Your task to perform on an android device: Open the Play Movies app and select the watchlist tab. Image 0: 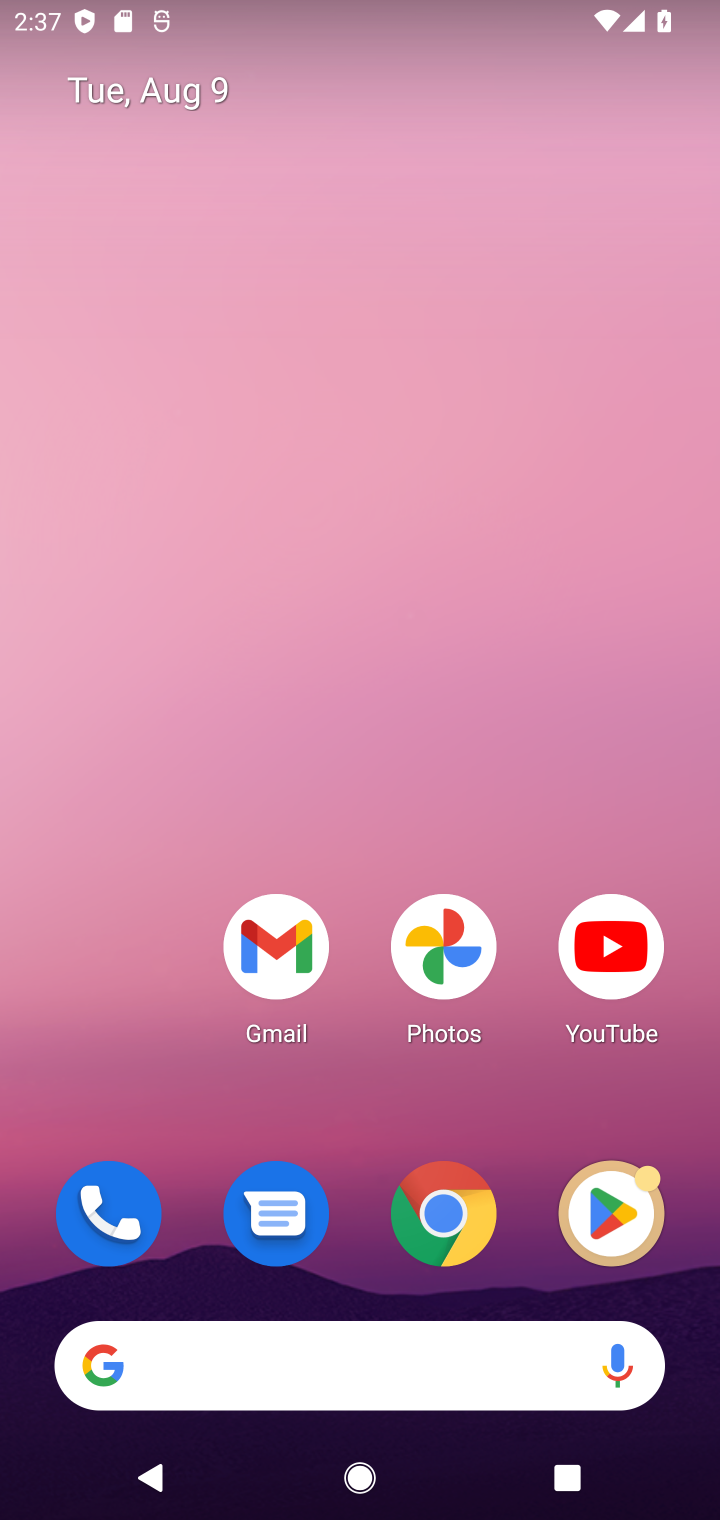
Step 0: drag from (287, 1338) to (576, 641)
Your task to perform on an android device: Open the Play Movies app and select the watchlist tab. Image 1: 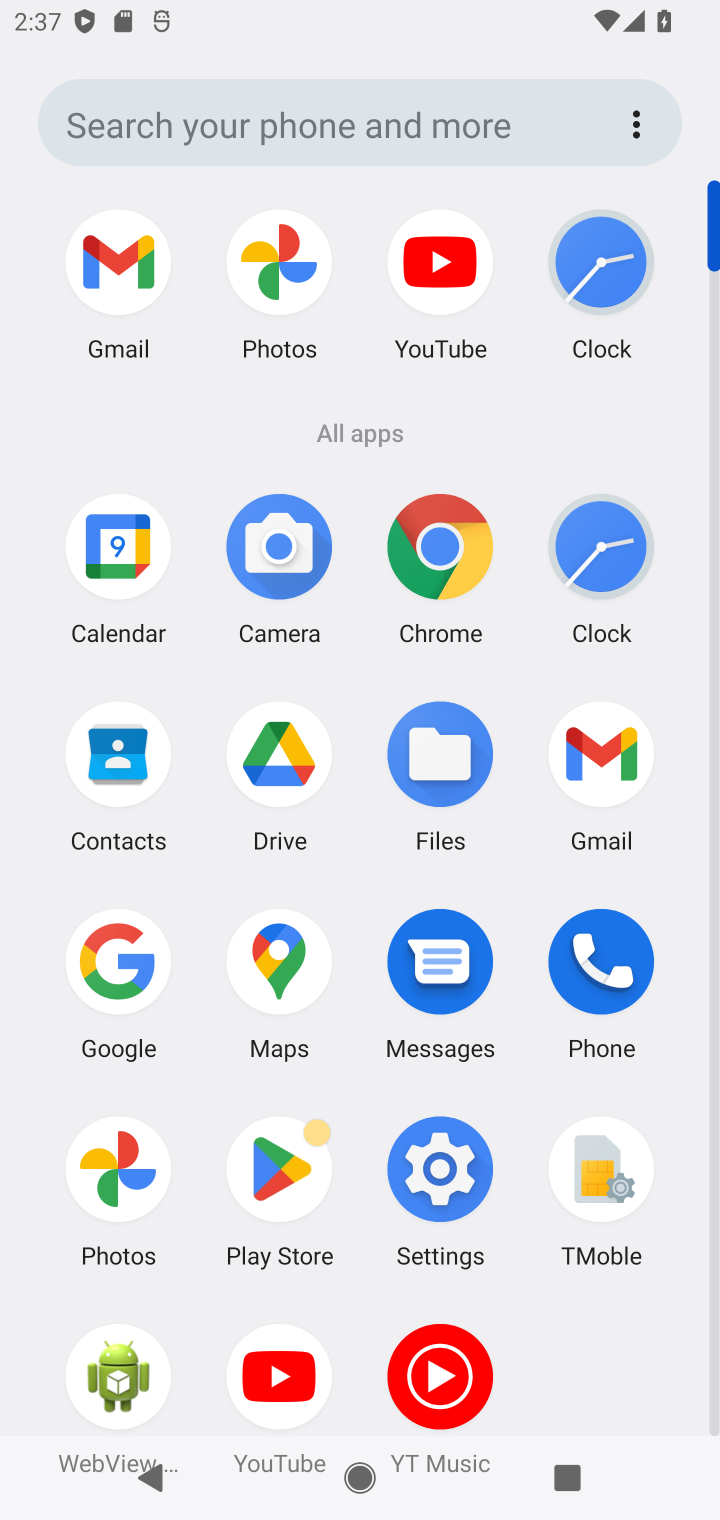
Step 1: click (383, 131)
Your task to perform on an android device: Open the Play Movies app and select the watchlist tab. Image 2: 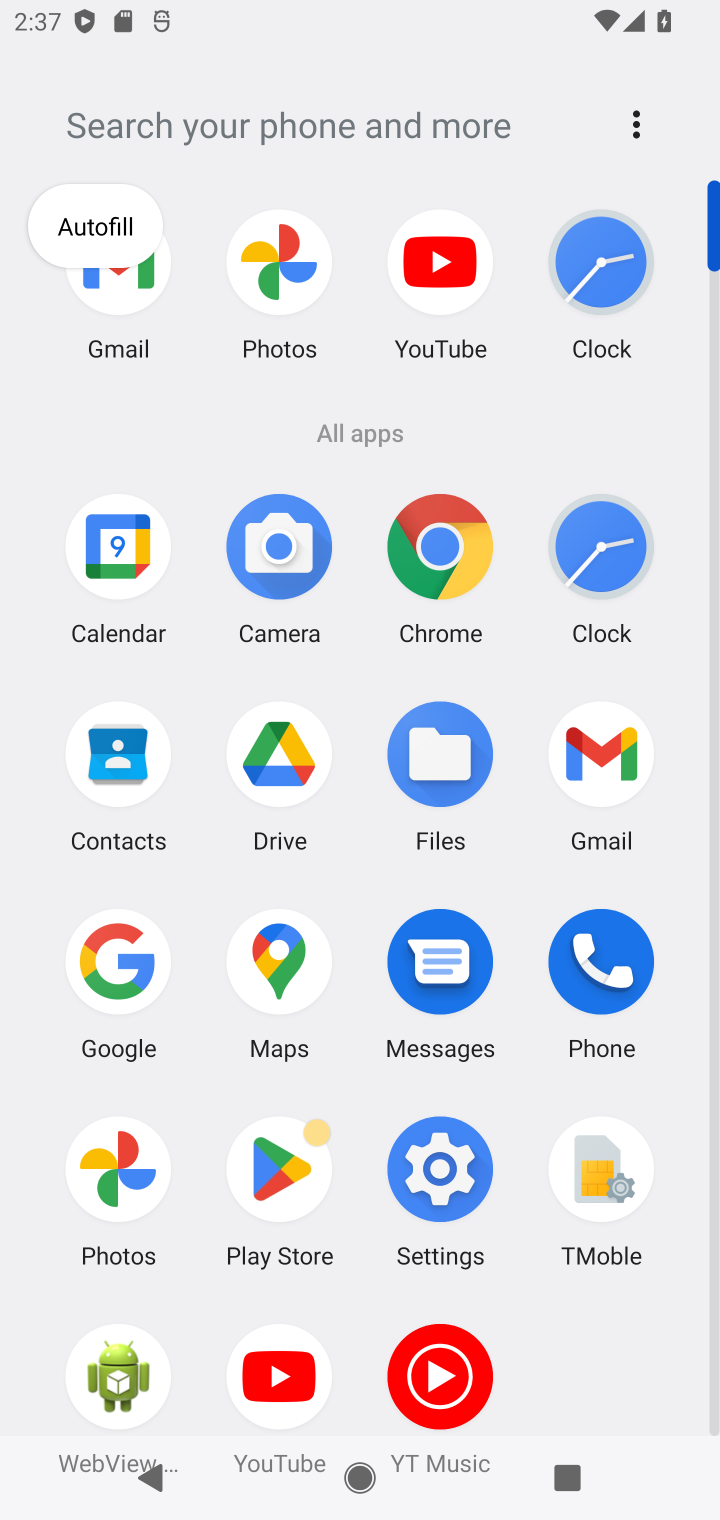
Step 2: click (289, 1174)
Your task to perform on an android device: Open the Play Movies app and select the watchlist tab. Image 3: 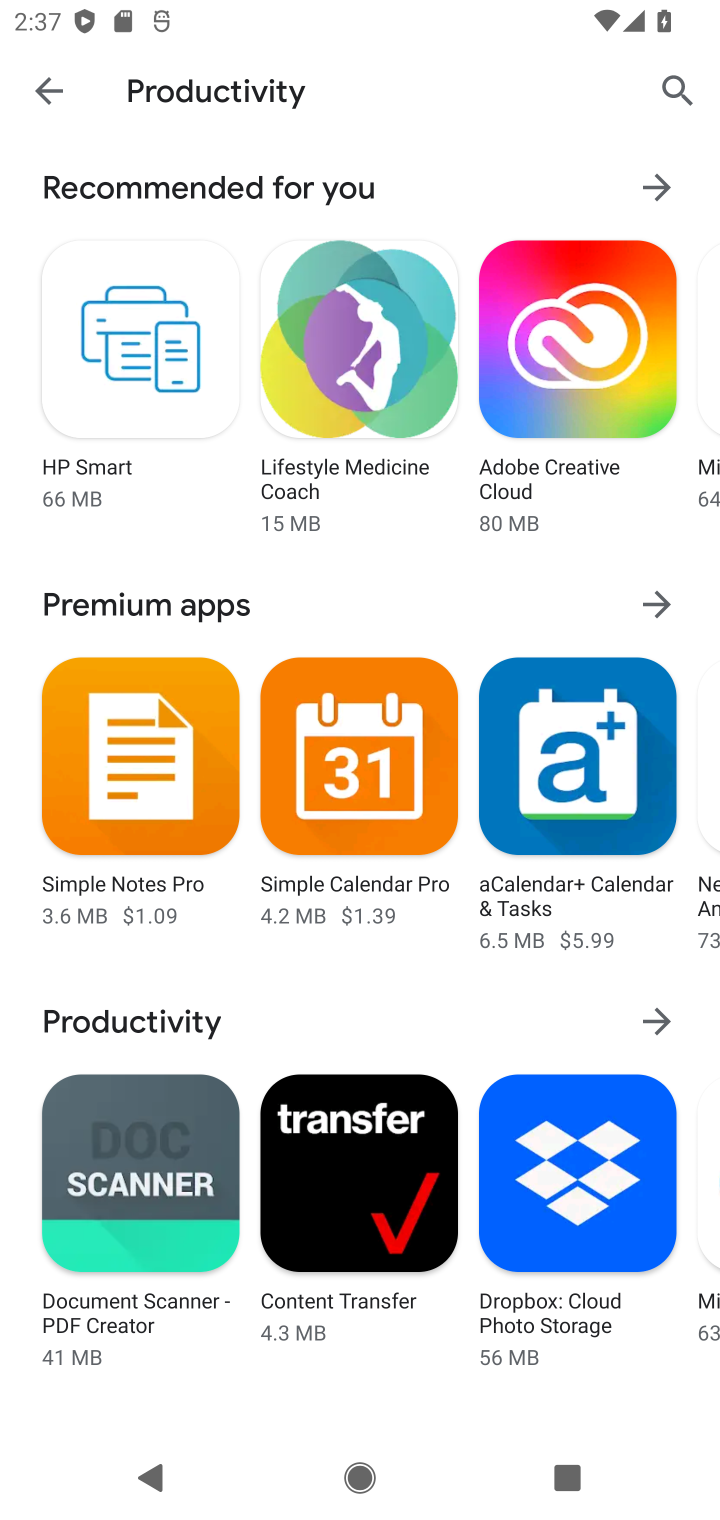
Step 3: click (686, 80)
Your task to perform on an android device: Open the Play Movies app and select the watchlist tab. Image 4: 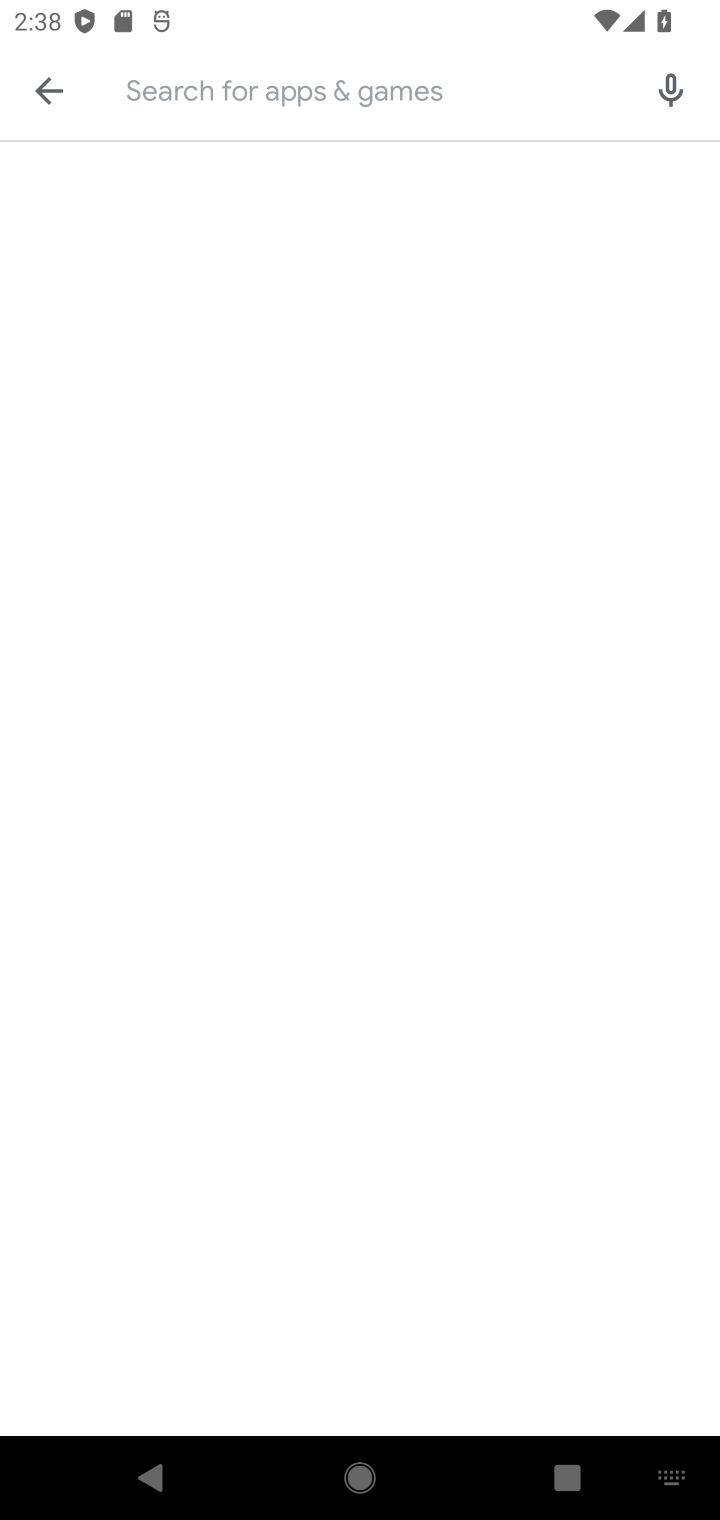
Step 4: click (477, 98)
Your task to perform on an android device: Open the Play Movies app and select the watchlist tab. Image 5: 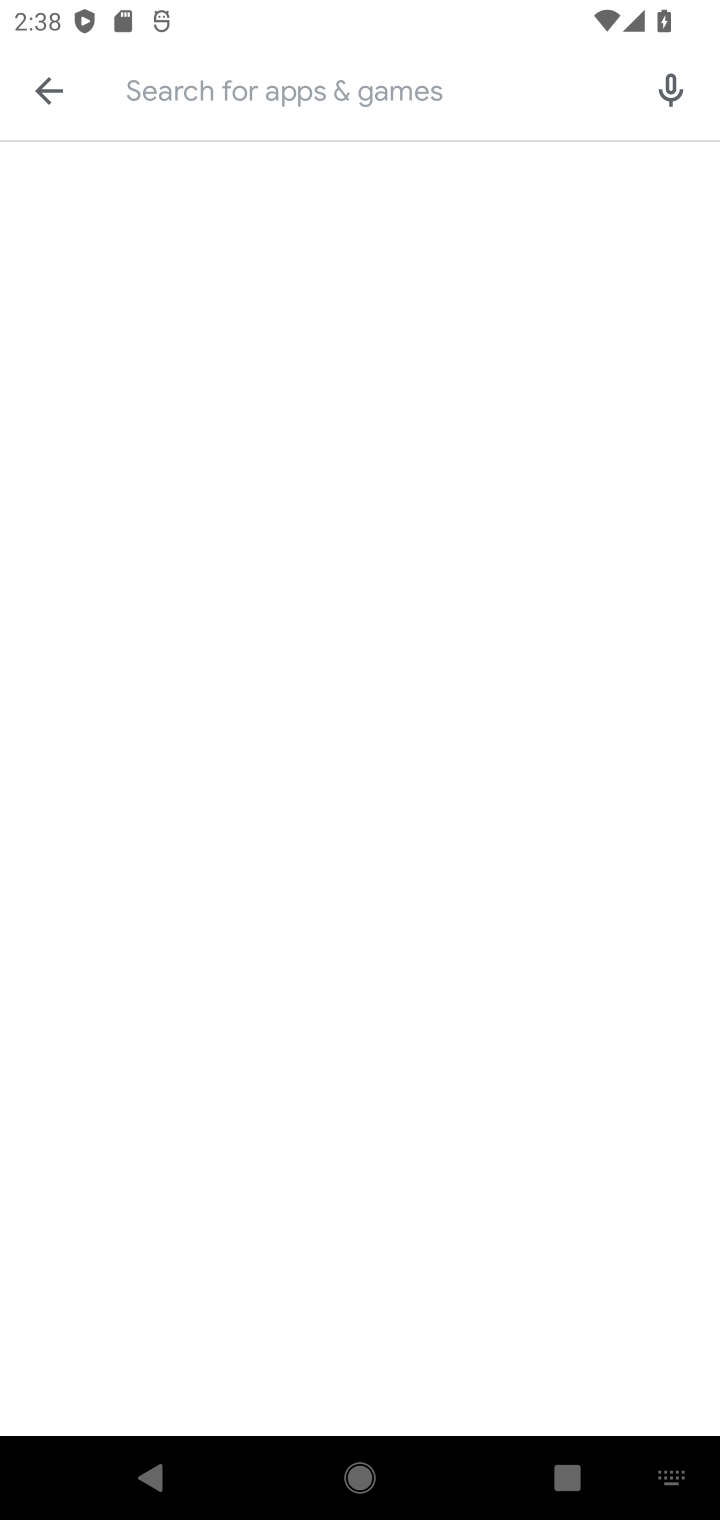
Step 5: type "Play Movies"
Your task to perform on an android device: Open the Play Movies app and select the watchlist tab. Image 6: 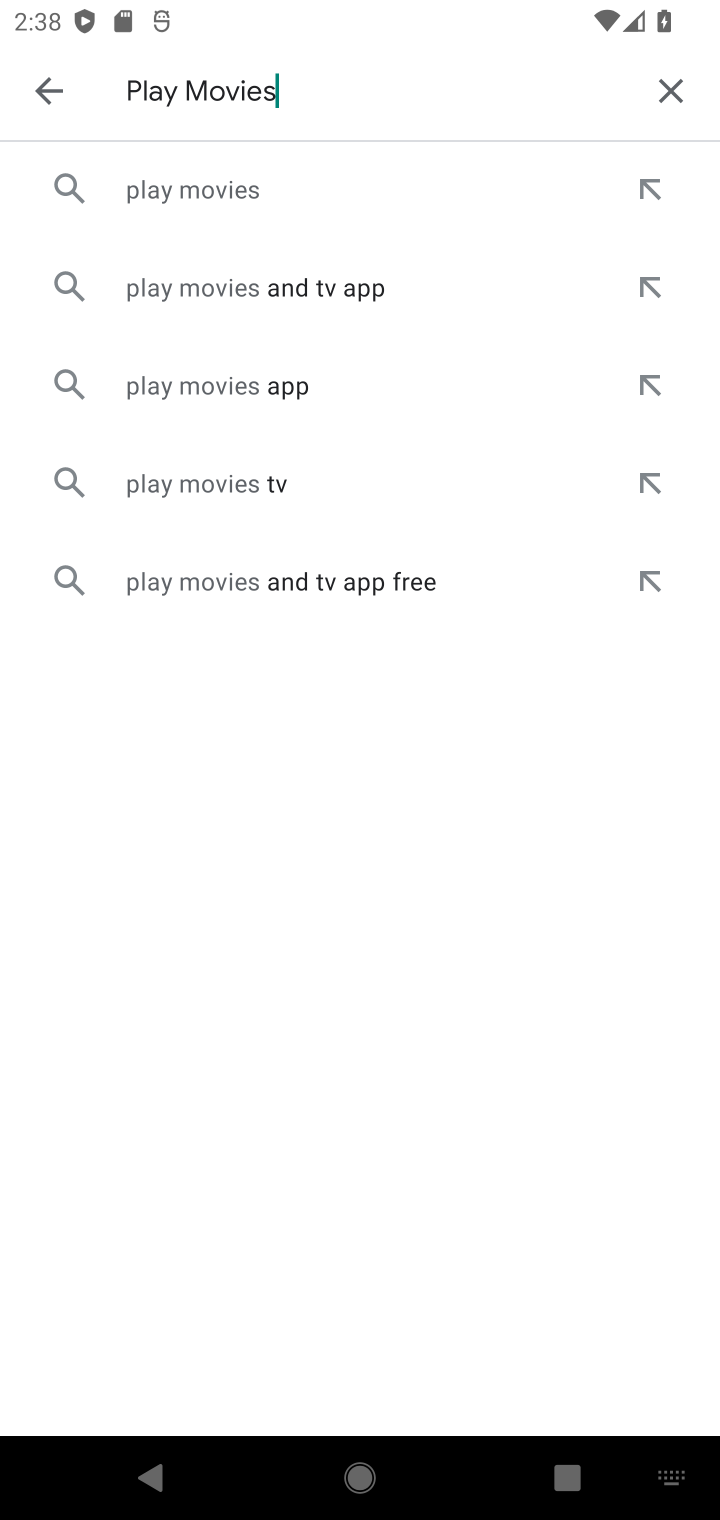
Step 6: click (248, 207)
Your task to perform on an android device: Open the Play Movies app and select the watchlist tab. Image 7: 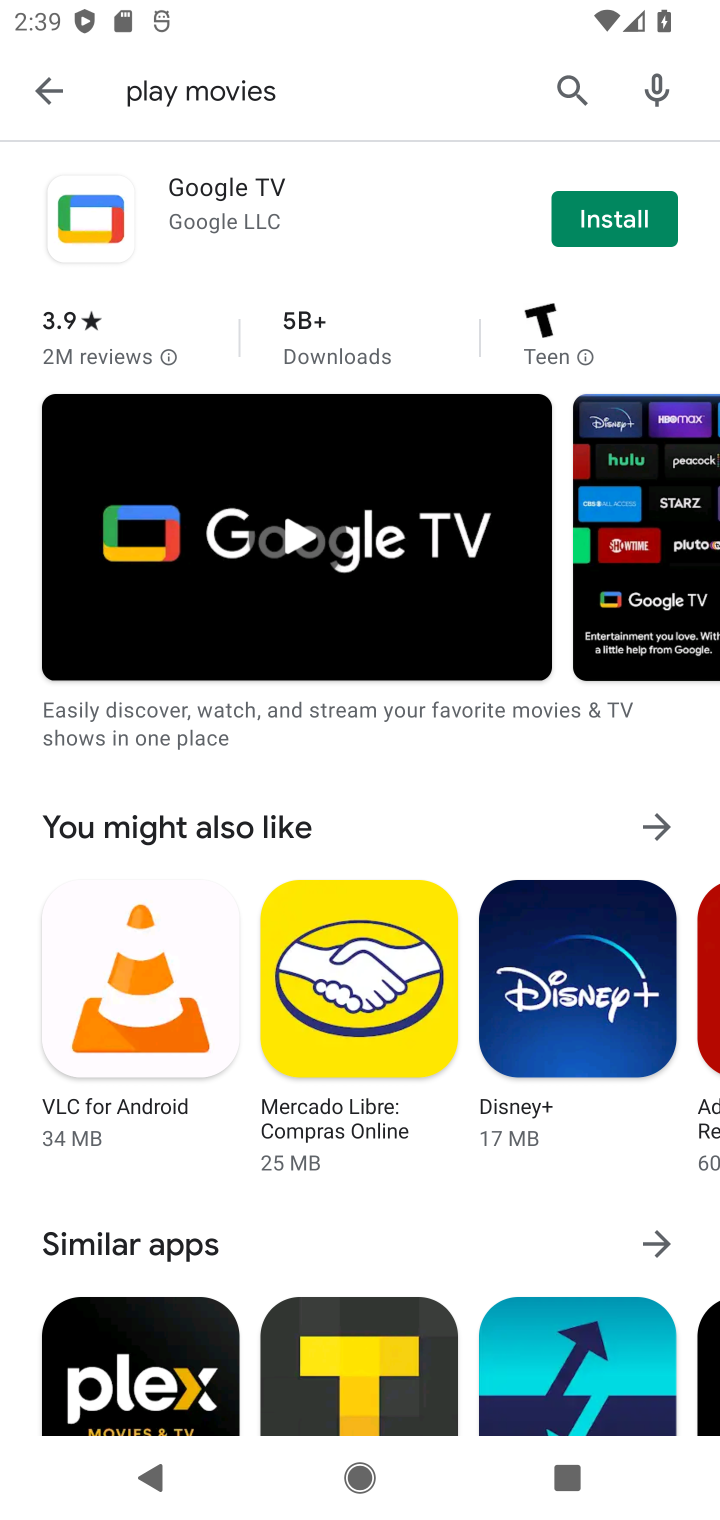
Step 7: task complete